Your task to perform on an android device: Do I have any events this weekend? Image 0: 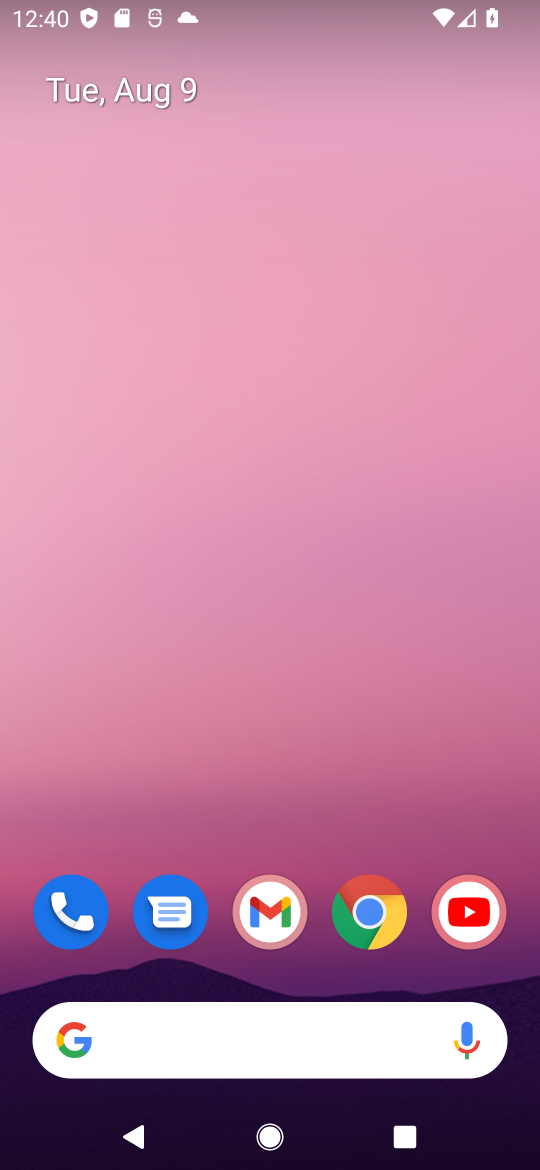
Step 0: drag from (288, 845) to (288, 342)
Your task to perform on an android device: Do I have any events this weekend? Image 1: 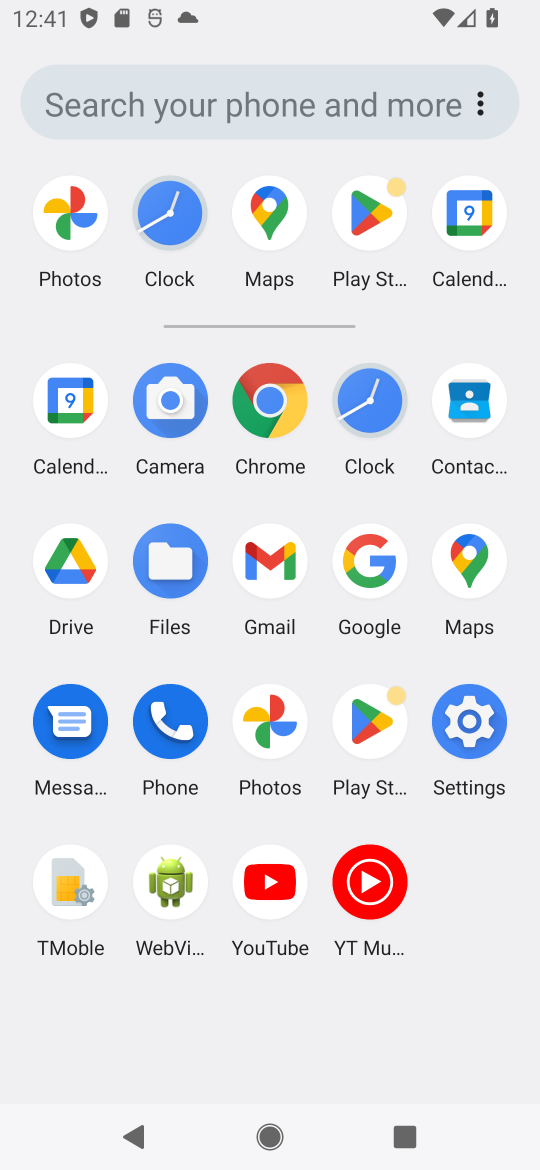
Step 1: click (465, 237)
Your task to perform on an android device: Do I have any events this weekend? Image 2: 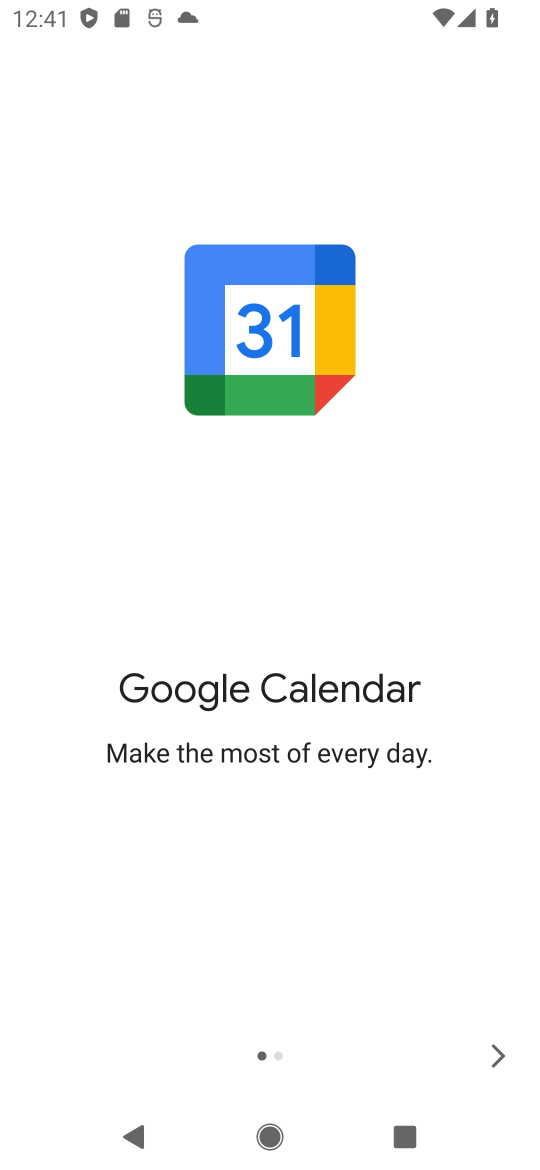
Step 2: click (494, 1056)
Your task to perform on an android device: Do I have any events this weekend? Image 3: 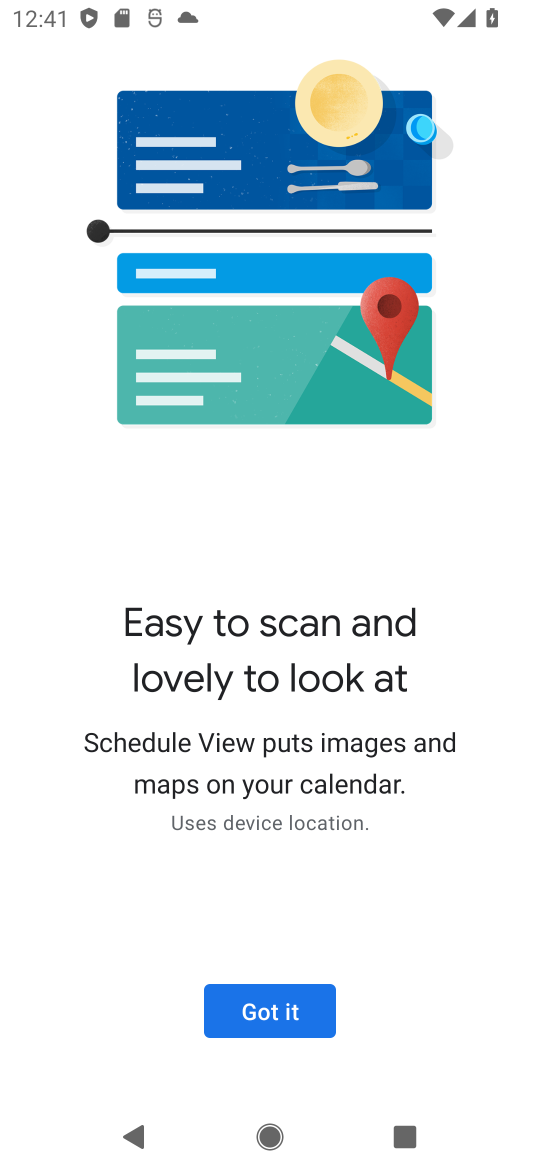
Step 3: click (285, 1002)
Your task to perform on an android device: Do I have any events this weekend? Image 4: 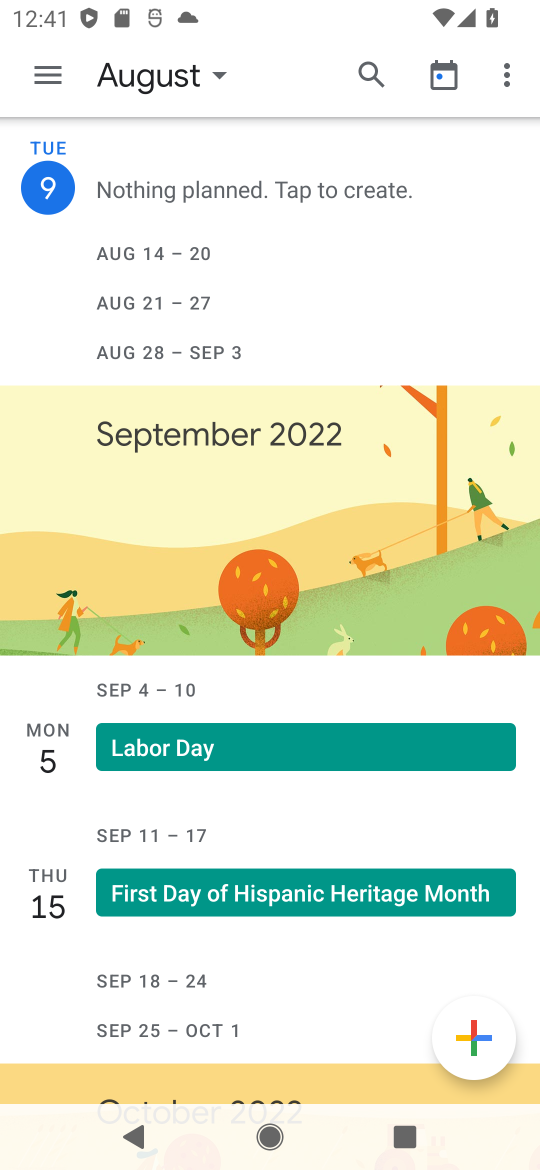
Step 4: click (163, 81)
Your task to perform on an android device: Do I have any events this weekend? Image 5: 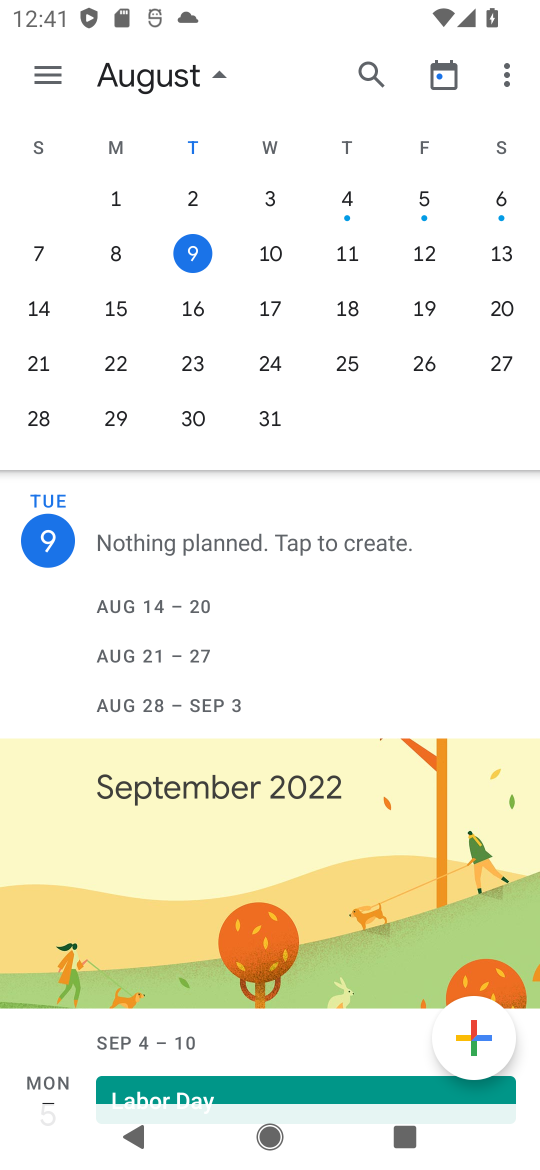
Step 5: click (417, 256)
Your task to perform on an android device: Do I have any events this weekend? Image 6: 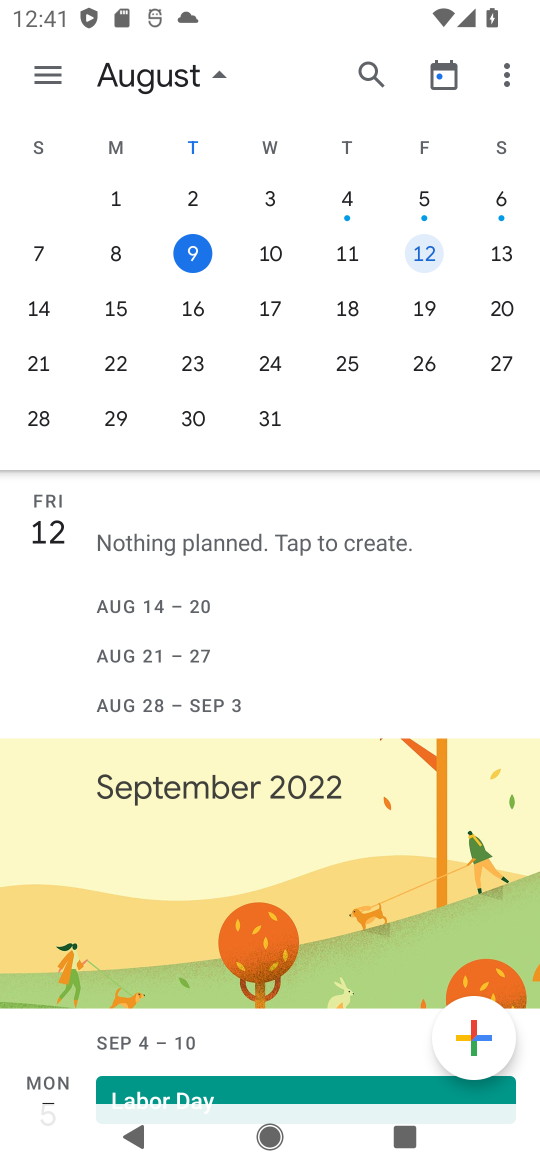
Step 6: click (498, 256)
Your task to perform on an android device: Do I have any events this weekend? Image 7: 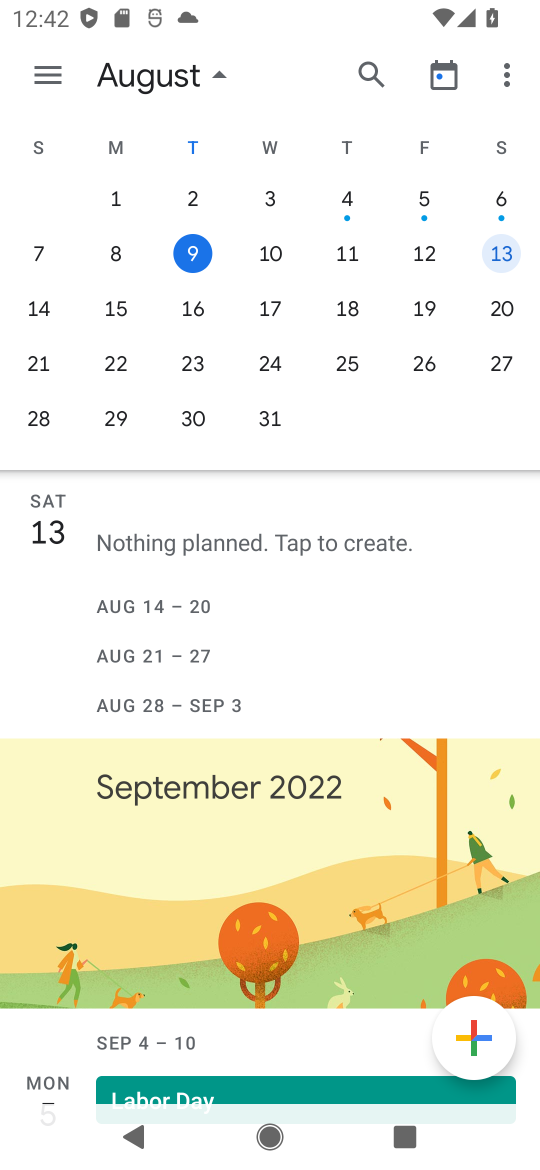
Step 7: click (30, 290)
Your task to perform on an android device: Do I have any events this weekend? Image 8: 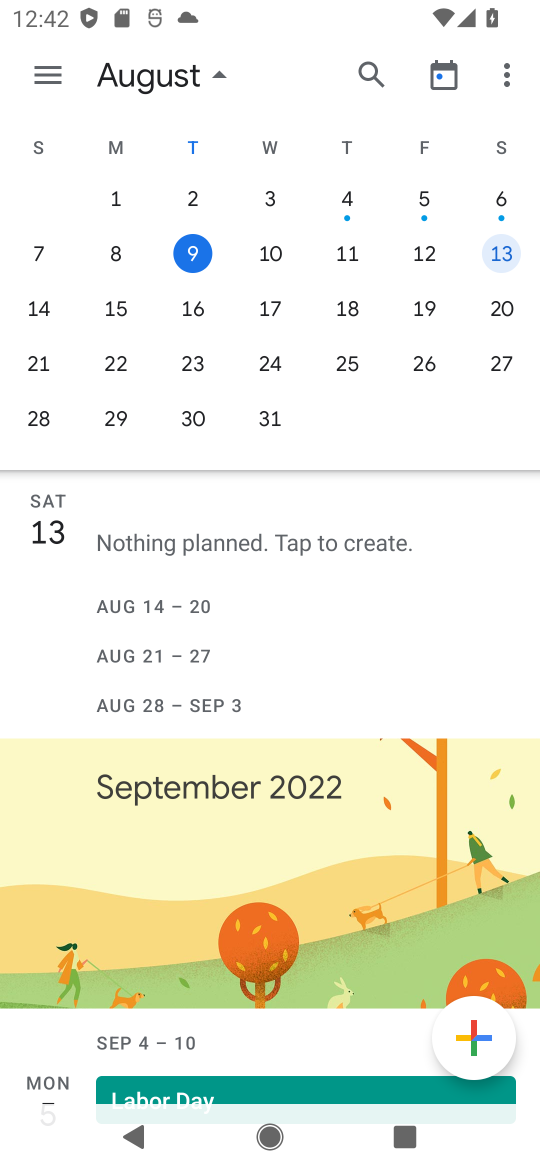
Step 8: click (43, 325)
Your task to perform on an android device: Do I have any events this weekend? Image 9: 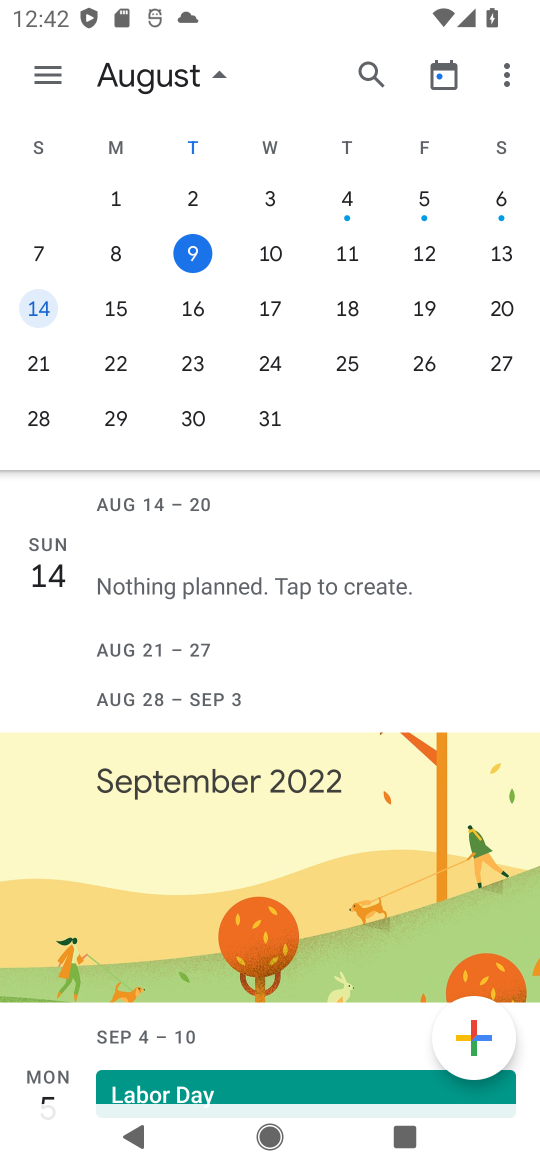
Step 9: task complete